Your task to perform on an android device: Add "macbook pro 15 inch" to the cart on ebay, then select checkout. Image 0: 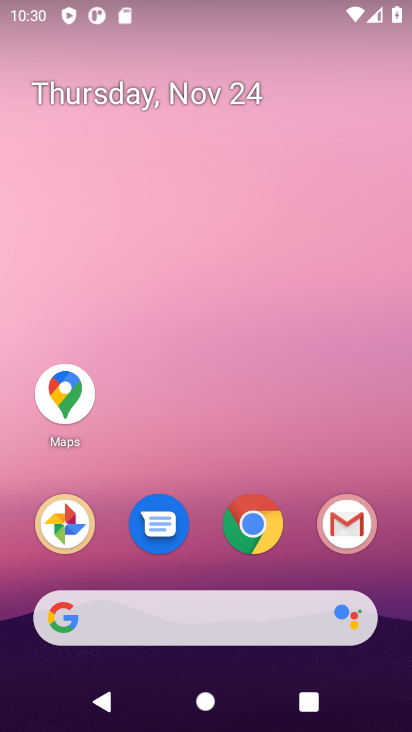
Step 0: click (250, 532)
Your task to perform on an android device: Add "macbook pro 15 inch" to the cart on ebay, then select checkout. Image 1: 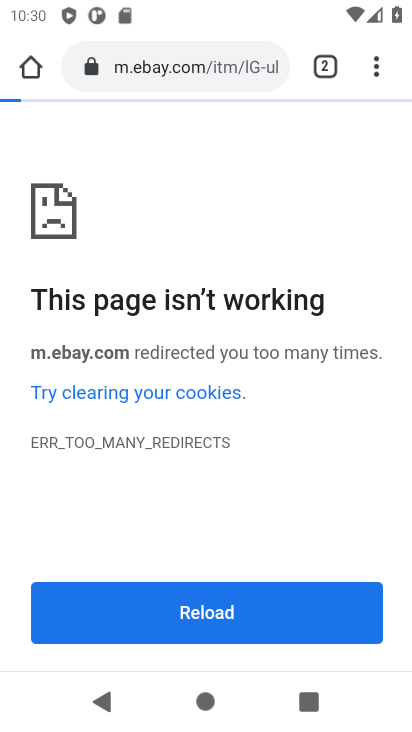
Step 1: click (164, 68)
Your task to perform on an android device: Add "macbook pro 15 inch" to the cart on ebay, then select checkout. Image 2: 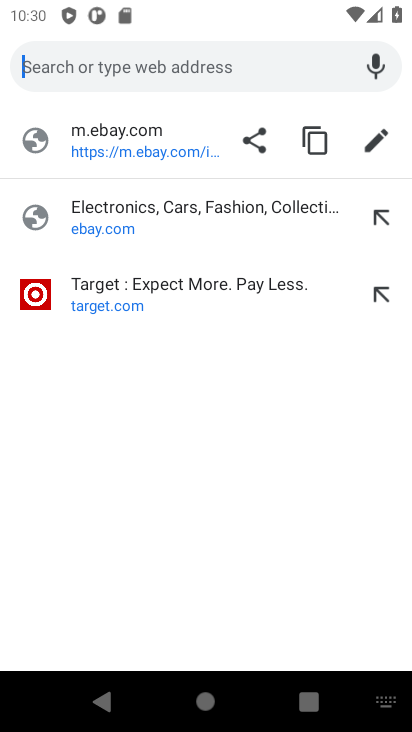
Step 2: click (86, 229)
Your task to perform on an android device: Add "macbook pro 15 inch" to the cart on ebay, then select checkout. Image 3: 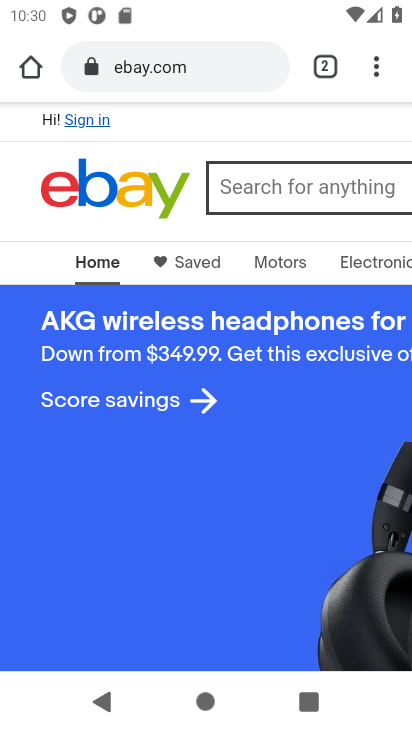
Step 3: click (297, 201)
Your task to perform on an android device: Add "macbook pro 15 inch" to the cart on ebay, then select checkout. Image 4: 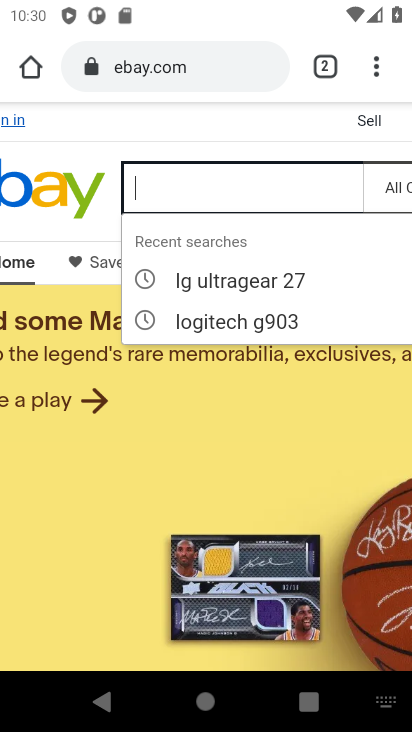
Step 4: type "macbook pro 15 inch"
Your task to perform on an android device: Add "macbook pro 15 inch" to the cart on ebay, then select checkout. Image 5: 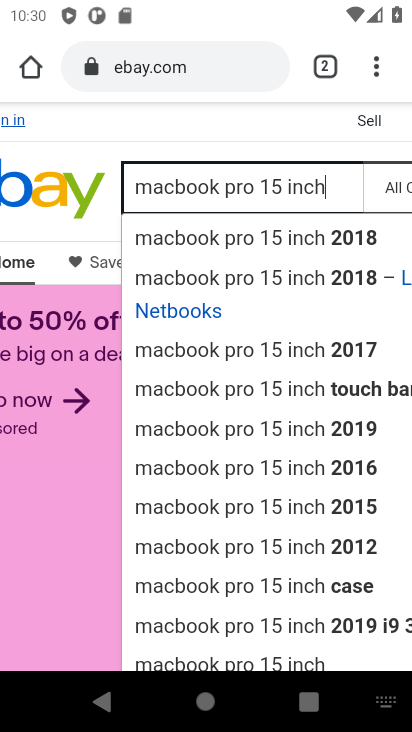
Step 5: click (288, 248)
Your task to perform on an android device: Add "macbook pro 15 inch" to the cart on ebay, then select checkout. Image 6: 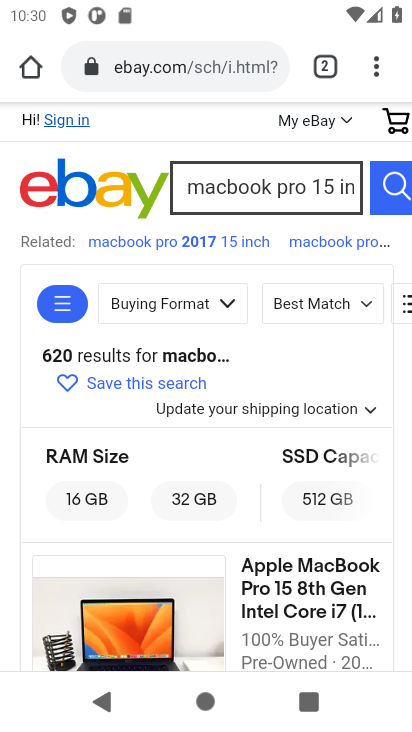
Step 6: drag from (132, 634) to (95, 459)
Your task to perform on an android device: Add "macbook pro 15 inch" to the cart on ebay, then select checkout. Image 7: 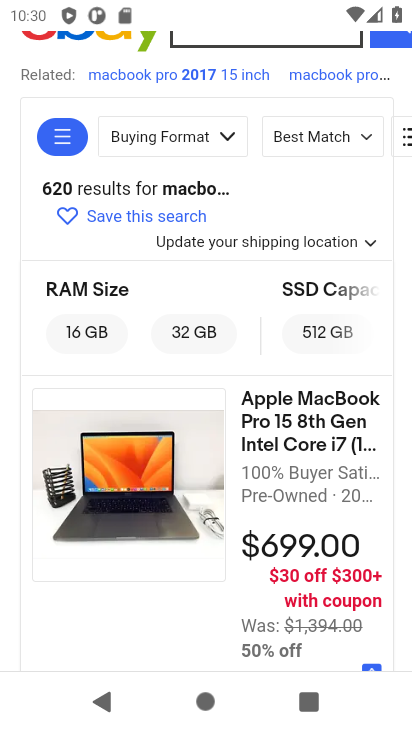
Step 7: click (94, 478)
Your task to perform on an android device: Add "macbook pro 15 inch" to the cart on ebay, then select checkout. Image 8: 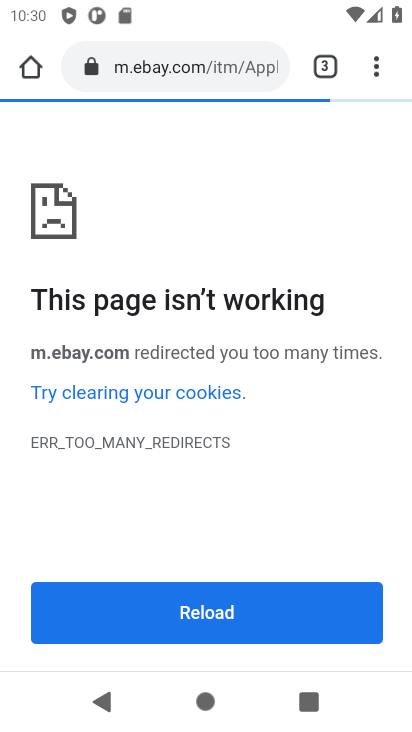
Step 8: task complete